Your task to perform on an android device: Check the news Image 0: 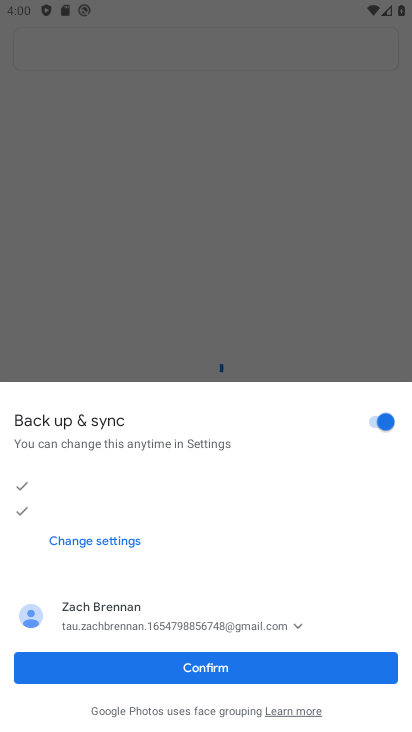
Step 0: press home button
Your task to perform on an android device: Check the news Image 1: 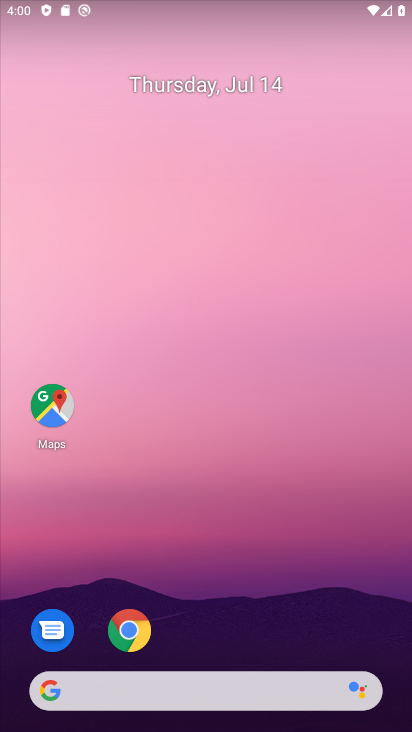
Step 1: task complete